Your task to perform on an android device: What time is it in Beijing? Image 0: 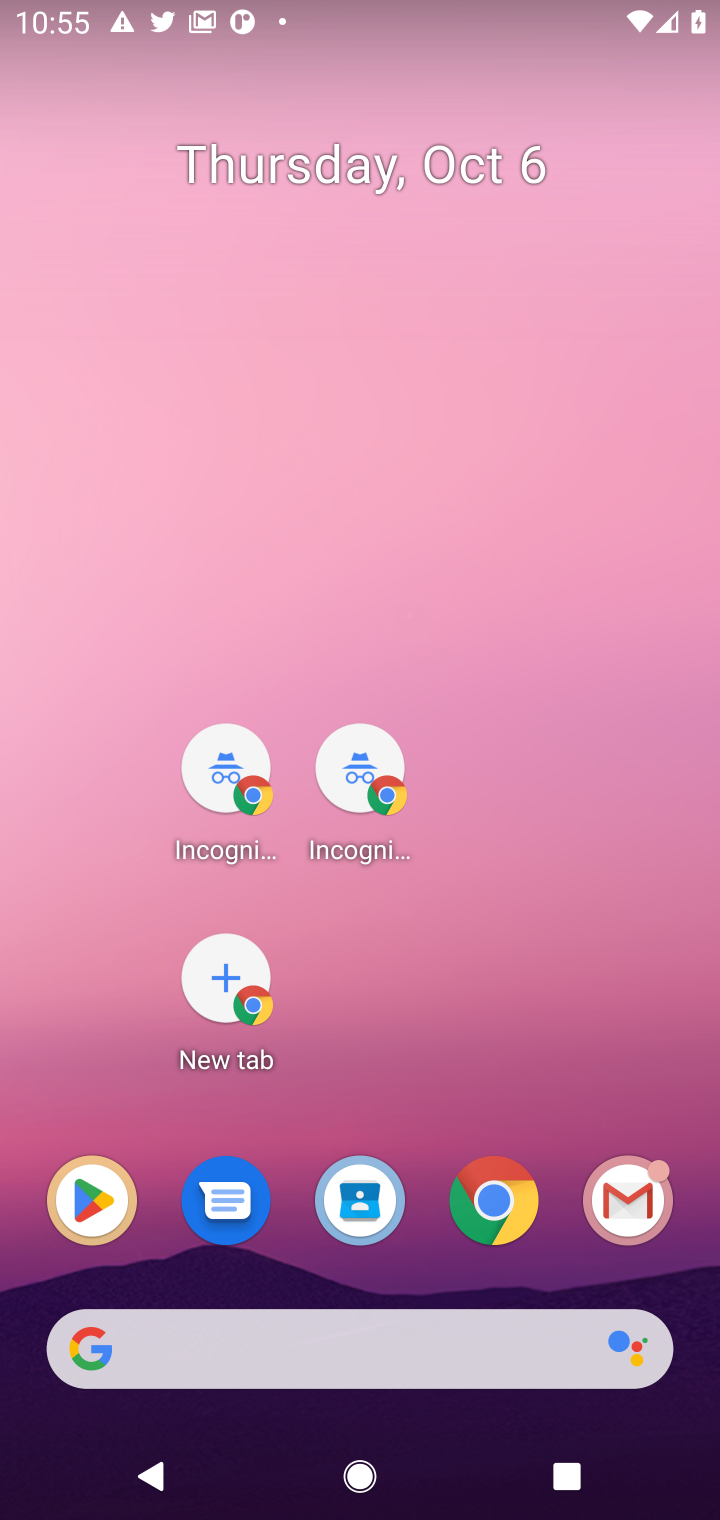
Step 0: click (480, 1201)
Your task to perform on an android device: What time is it in Beijing? Image 1: 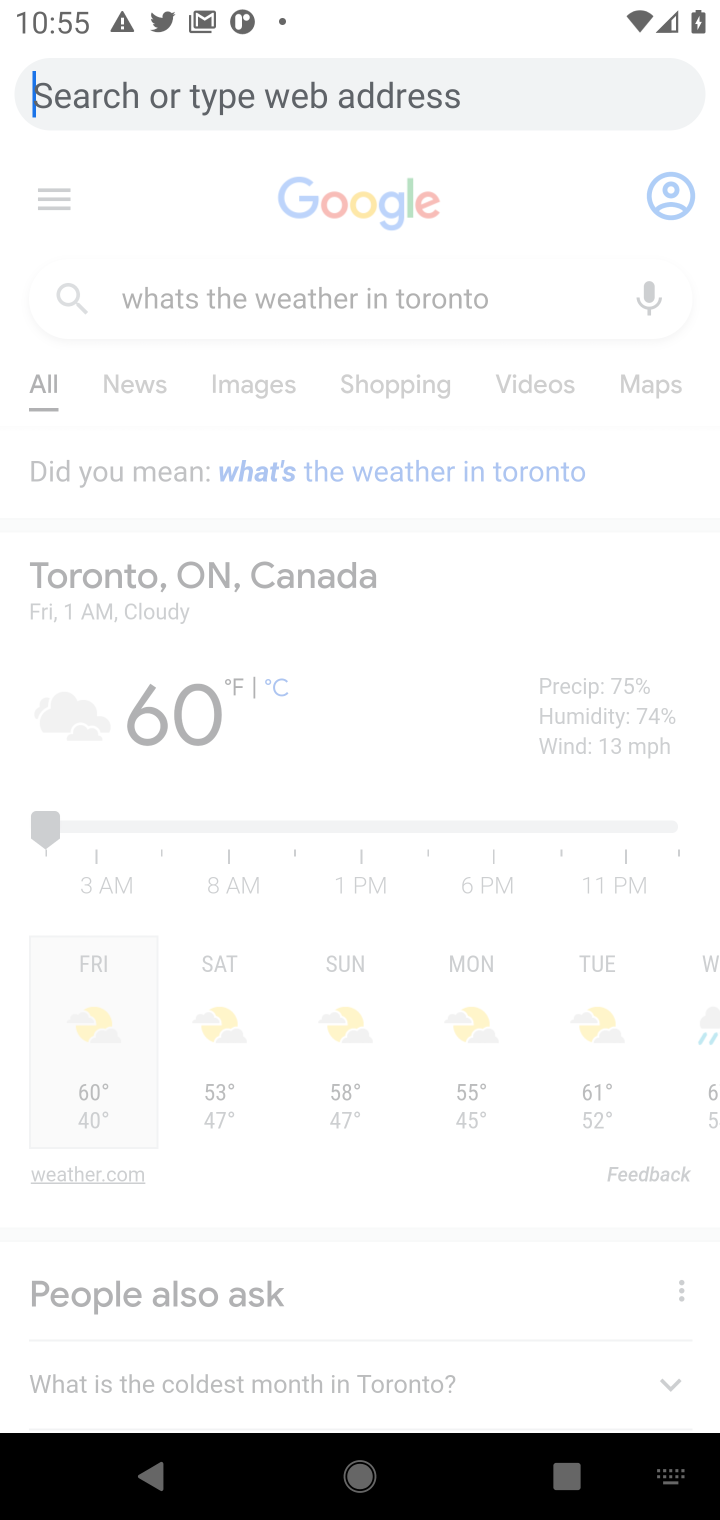
Step 1: type "what time is it beijing"
Your task to perform on an android device: What time is it in Beijing? Image 2: 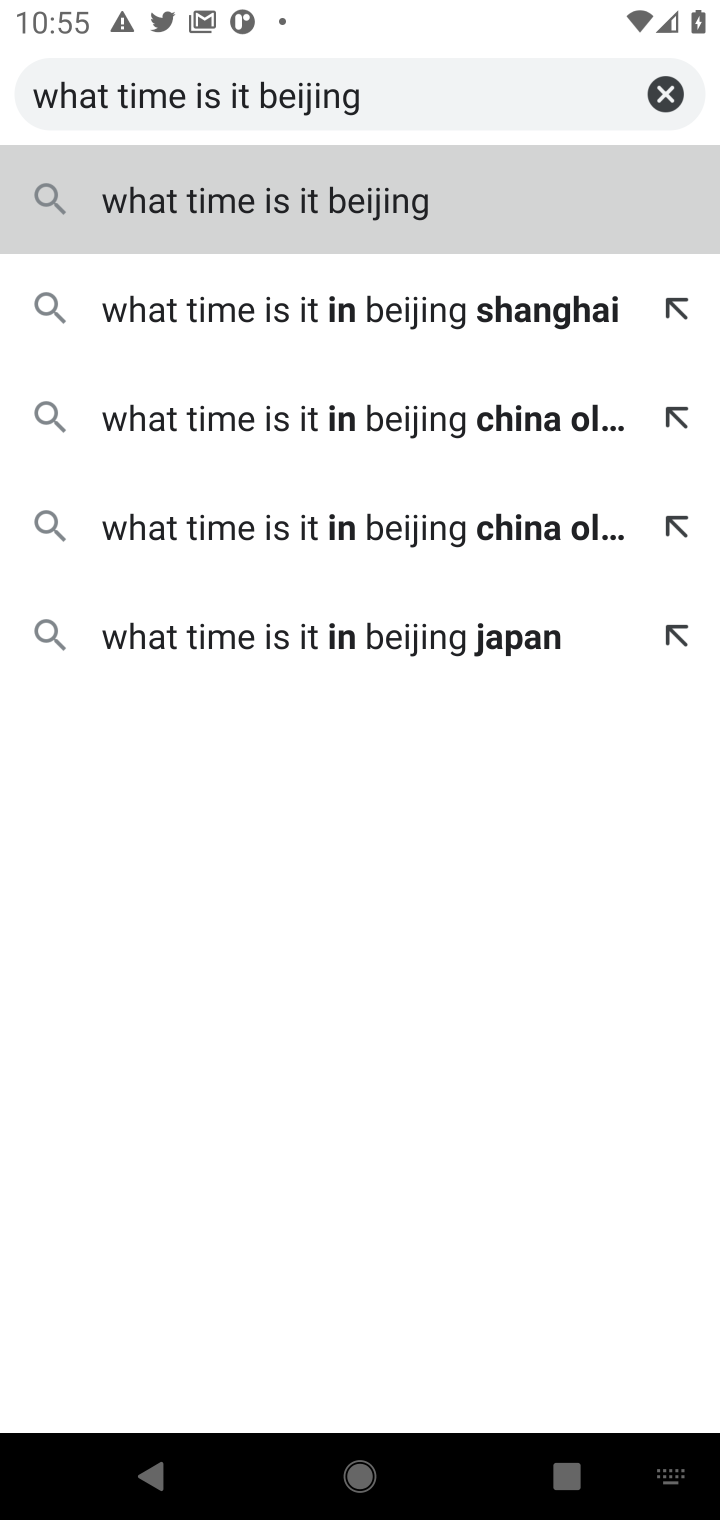
Step 2: type ""
Your task to perform on an android device: What time is it in Beijing? Image 3: 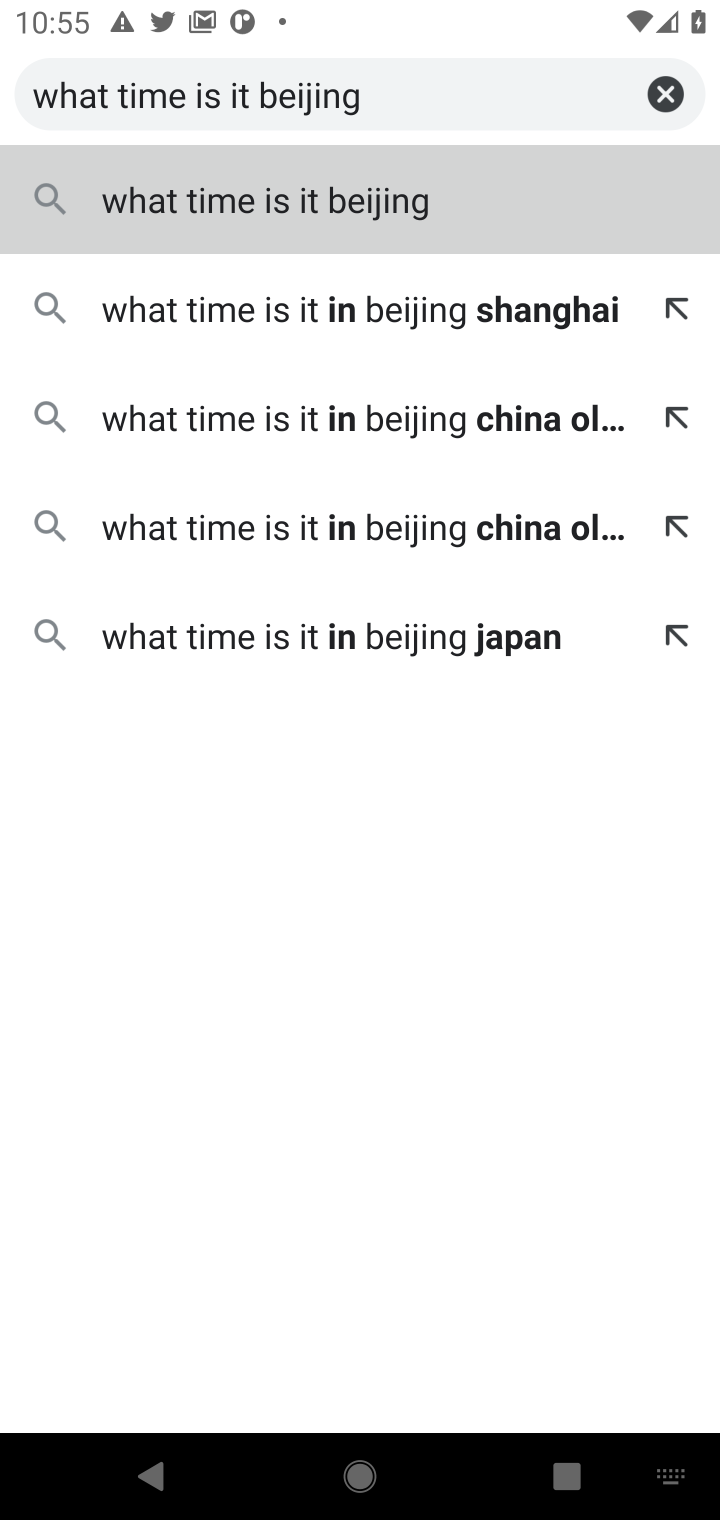
Step 3: click (306, 190)
Your task to perform on an android device: What time is it in Beijing? Image 4: 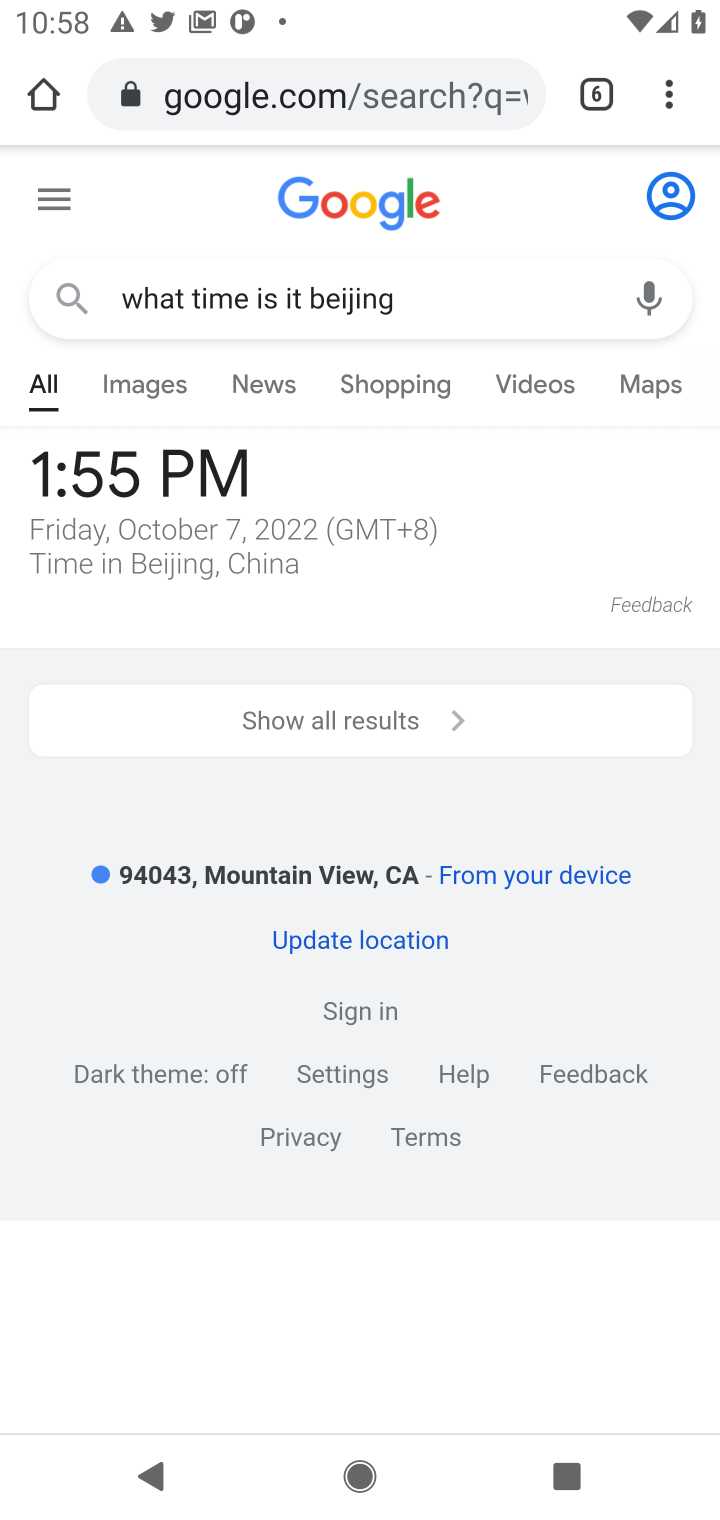
Step 4: task complete